Your task to perform on an android device: Open Google Maps and go to "Timeline" Image 0: 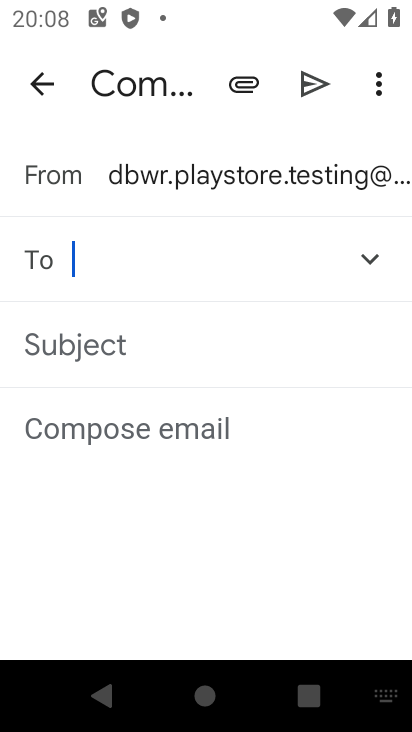
Step 0: press home button
Your task to perform on an android device: Open Google Maps and go to "Timeline" Image 1: 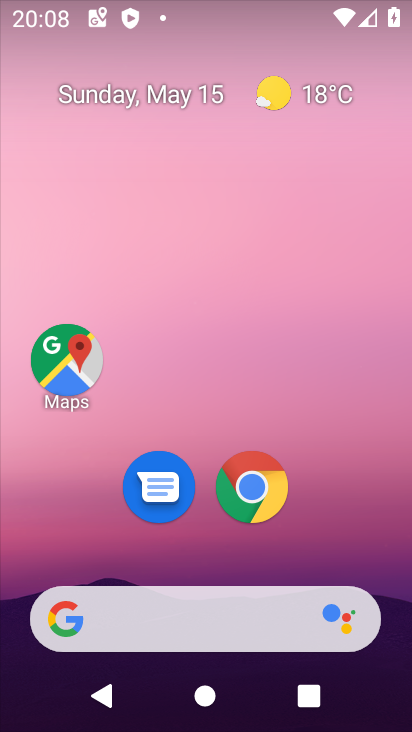
Step 1: click (47, 372)
Your task to perform on an android device: Open Google Maps and go to "Timeline" Image 2: 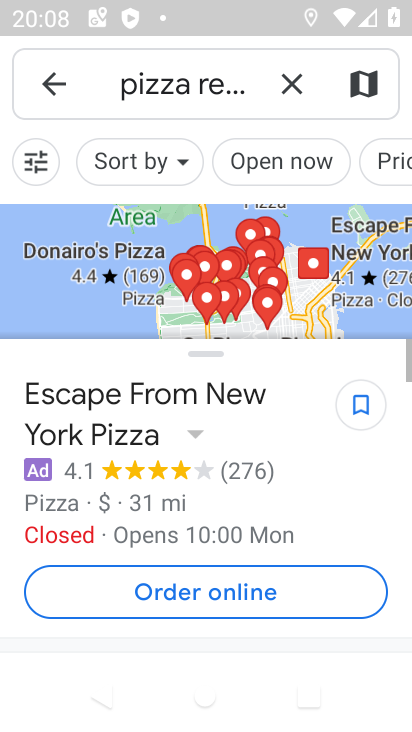
Step 2: click (48, 80)
Your task to perform on an android device: Open Google Maps and go to "Timeline" Image 3: 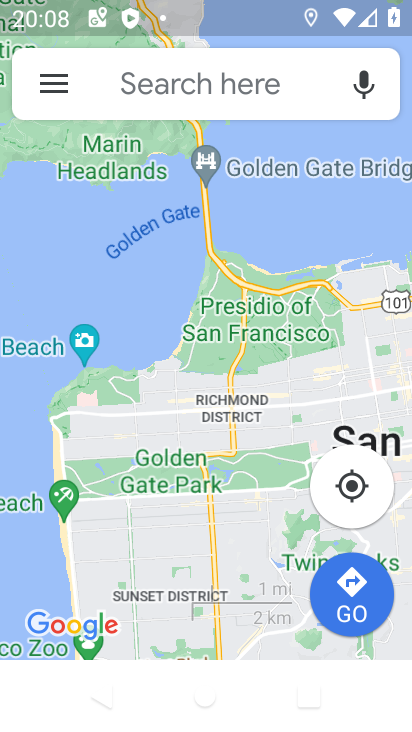
Step 3: click (49, 80)
Your task to perform on an android device: Open Google Maps and go to "Timeline" Image 4: 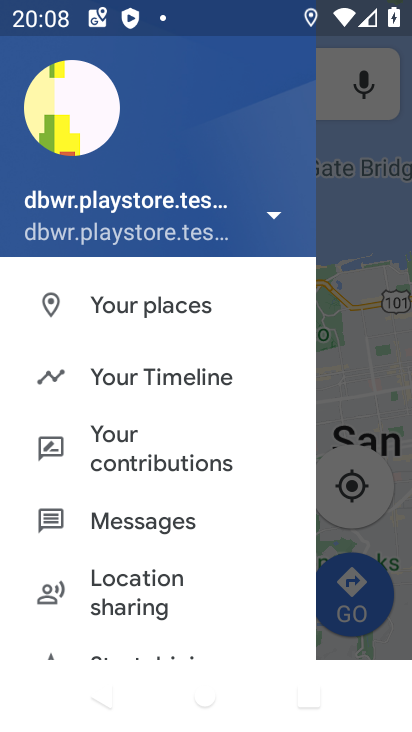
Step 4: click (119, 373)
Your task to perform on an android device: Open Google Maps and go to "Timeline" Image 5: 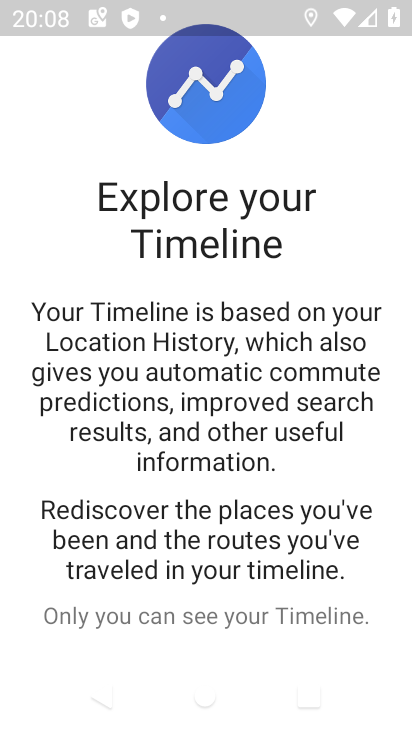
Step 5: drag from (282, 552) to (271, 271)
Your task to perform on an android device: Open Google Maps and go to "Timeline" Image 6: 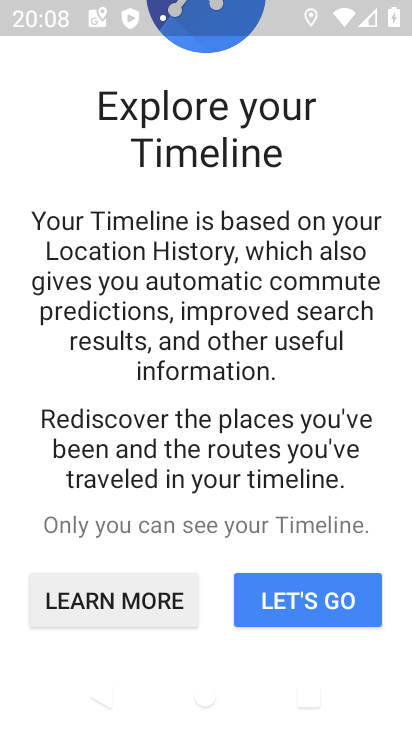
Step 6: click (301, 593)
Your task to perform on an android device: Open Google Maps and go to "Timeline" Image 7: 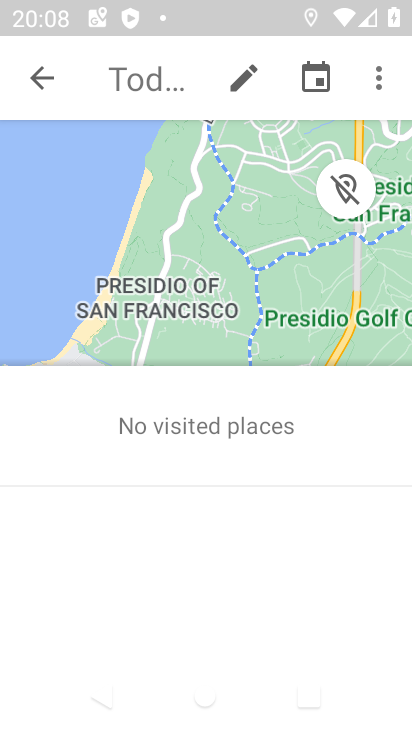
Step 7: click (45, 71)
Your task to perform on an android device: Open Google Maps and go to "Timeline" Image 8: 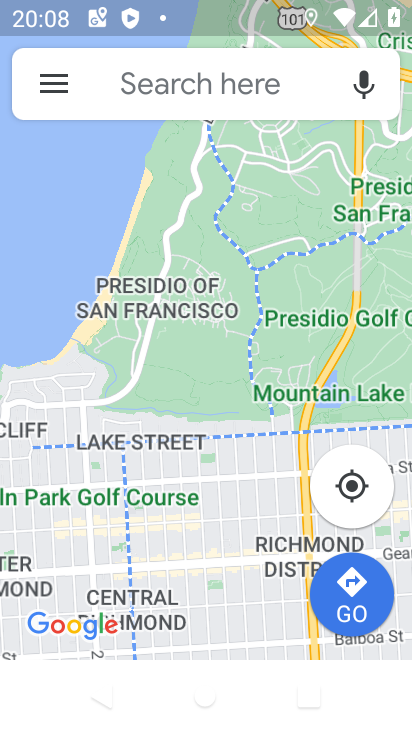
Step 8: click (144, 82)
Your task to perform on an android device: Open Google Maps and go to "Timeline" Image 9: 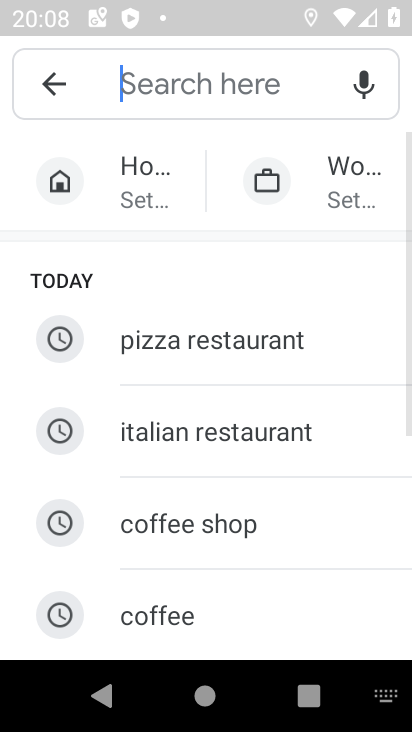
Step 9: click (52, 79)
Your task to perform on an android device: Open Google Maps and go to "Timeline" Image 10: 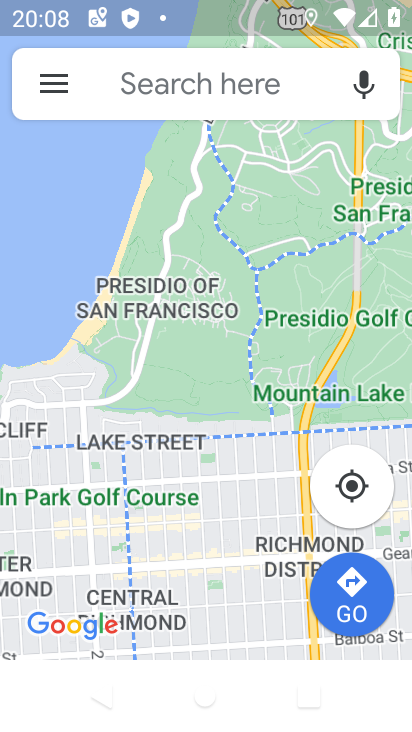
Step 10: click (54, 75)
Your task to perform on an android device: Open Google Maps and go to "Timeline" Image 11: 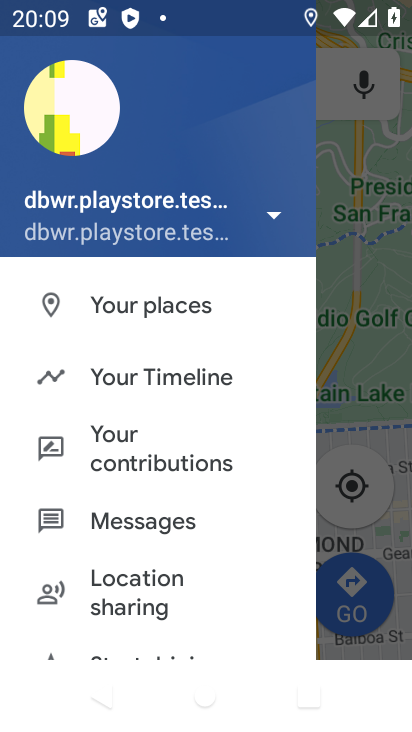
Step 11: click (140, 375)
Your task to perform on an android device: Open Google Maps and go to "Timeline" Image 12: 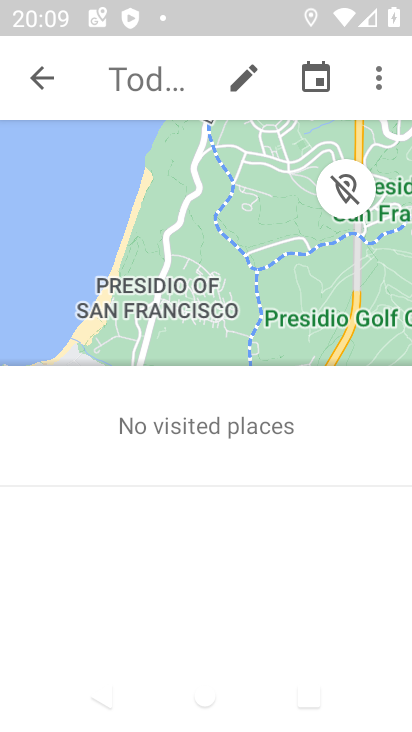
Step 12: task complete